Your task to perform on an android device: turn on bluetooth scan Image 0: 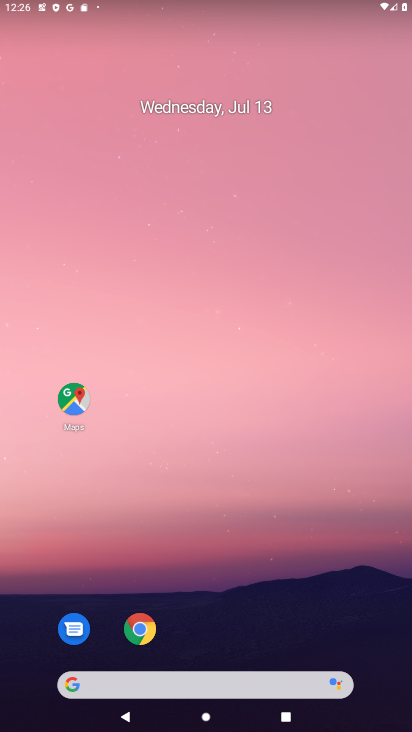
Step 0: drag from (253, 602) to (250, 135)
Your task to perform on an android device: turn on bluetooth scan Image 1: 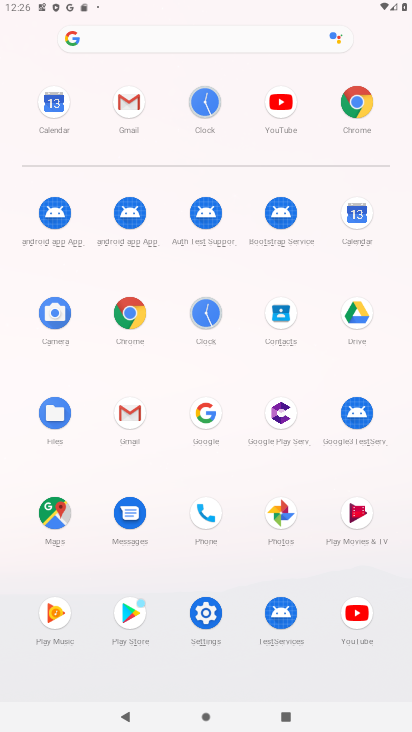
Step 1: click (207, 608)
Your task to perform on an android device: turn on bluetooth scan Image 2: 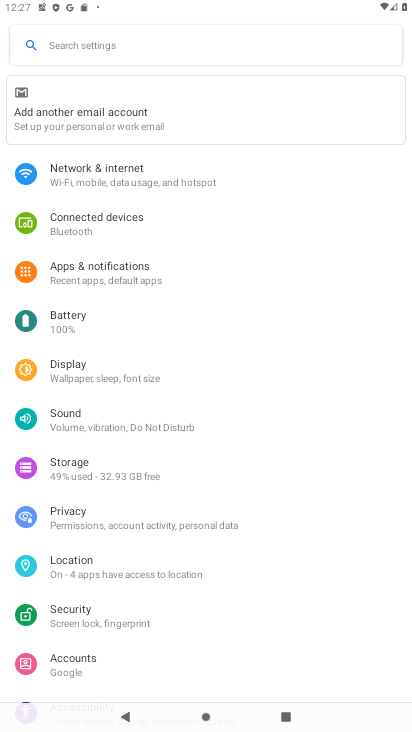
Step 2: click (217, 49)
Your task to perform on an android device: turn on bluetooth scan Image 3: 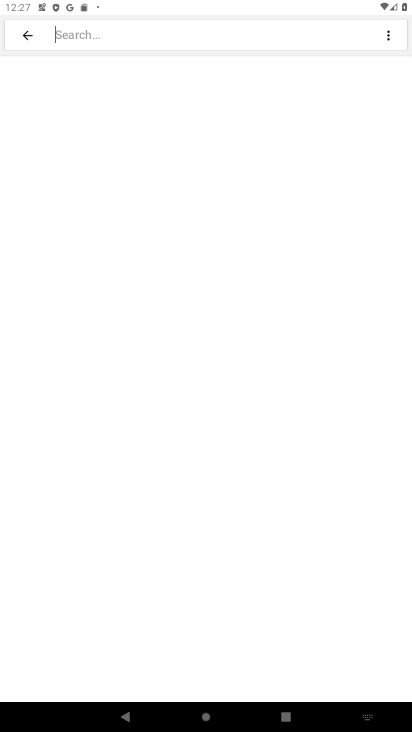
Step 3: type " bluetooth scan "
Your task to perform on an android device: turn on bluetooth scan Image 4: 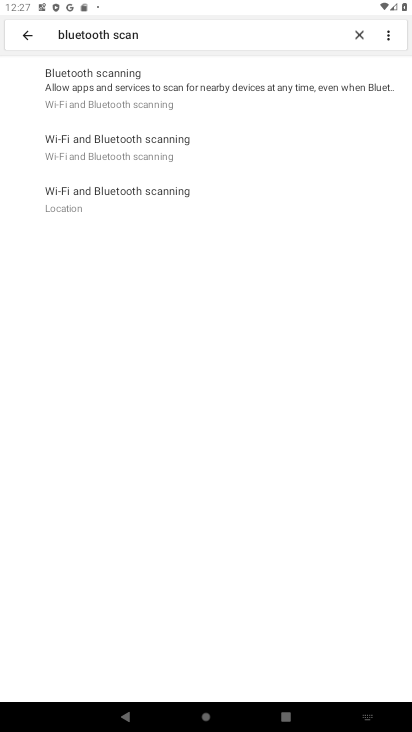
Step 4: click (244, 89)
Your task to perform on an android device: turn on bluetooth scan Image 5: 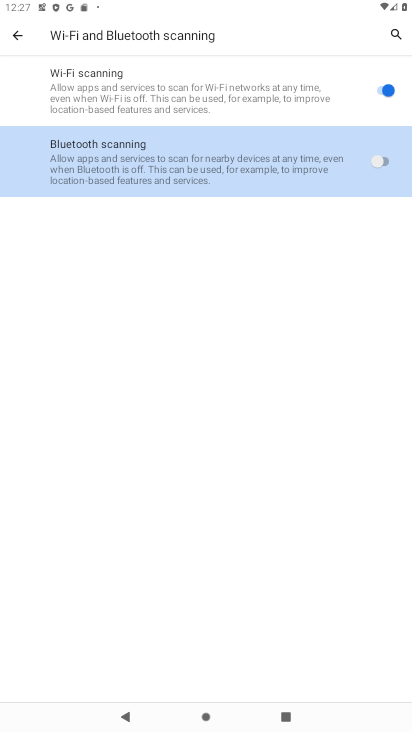
Step 5: click (403, 165)
Your task to perform on an android device: turn on bluetooth scan Image 6: 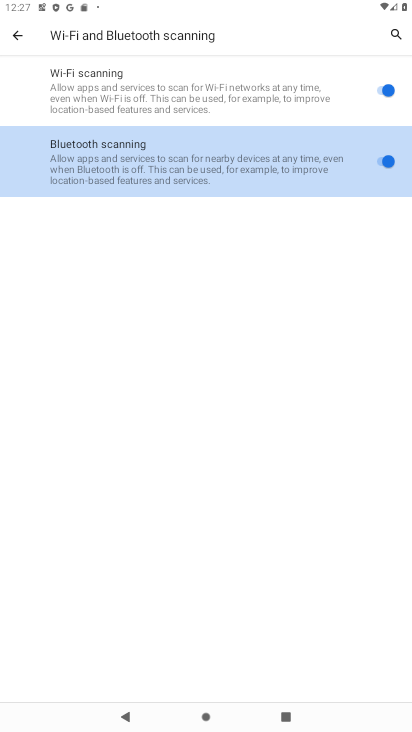
Step 6: task complete